Your task to perform on an android device: turn on location history Image 0: 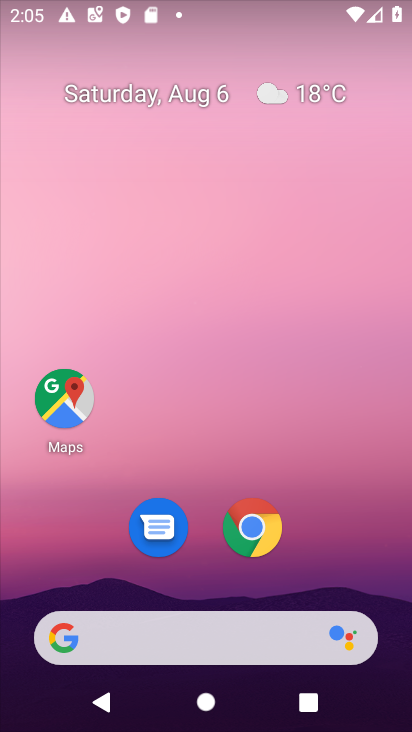
Step 0: drag from (31, 573) to (229, 138)
Your task to perform on an android device: turn on location history Image 1: 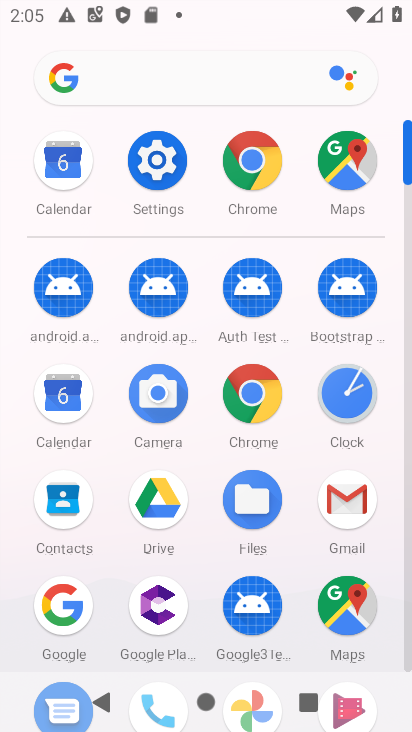
Step 1: click (149, 166)
Your task to perform on an android device: turn on location history Image 2: 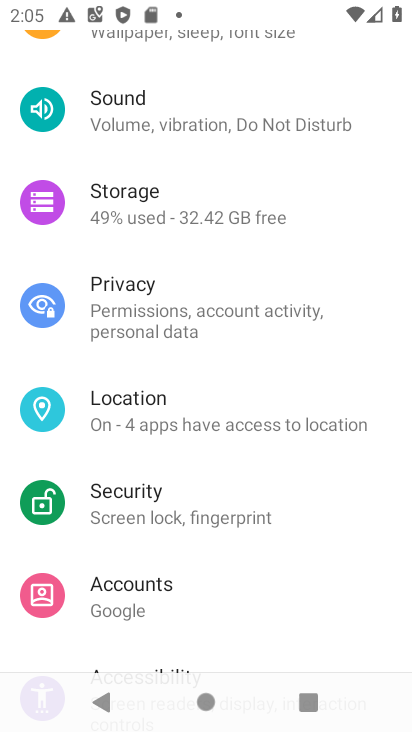
Step 2: click (225, 424)
Your task to perform on an android device: turn on location history Image 3: 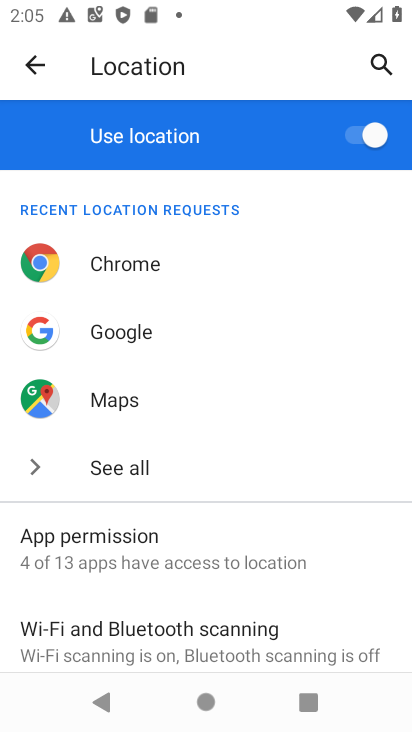
Step 3: drag from (20, 551) to (263, 121)
Your task to perform on an android device: turn on location history Image 4: 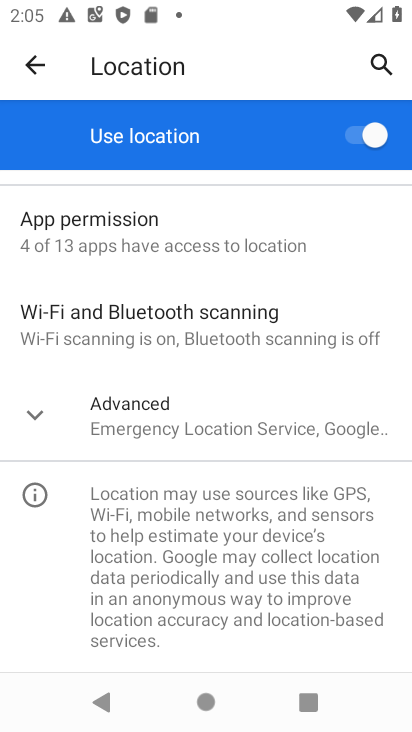
Step 4: click (99, 415)
Your task to perform on an android device: turn on location history Image 5: 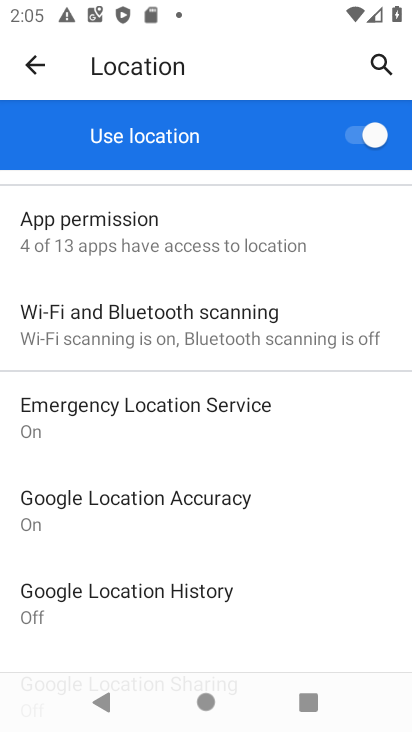
Step 5: click (133, 612)
Your task to perform on an android device: turn on location history Image 6: 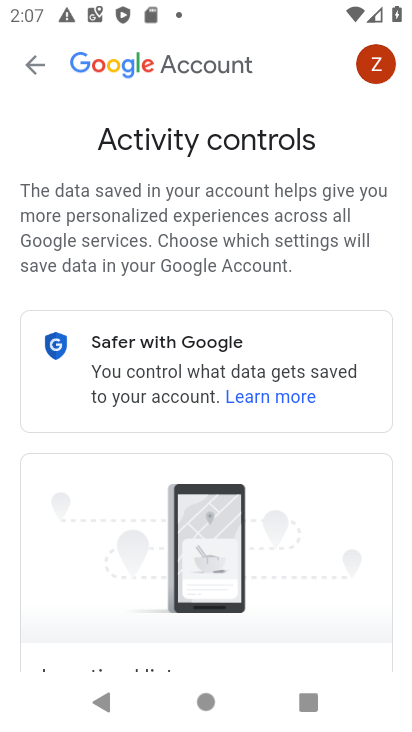
Step 6: task complete